Your task to perform on an android device: toggle notifications settings in the gmail app Image 0: 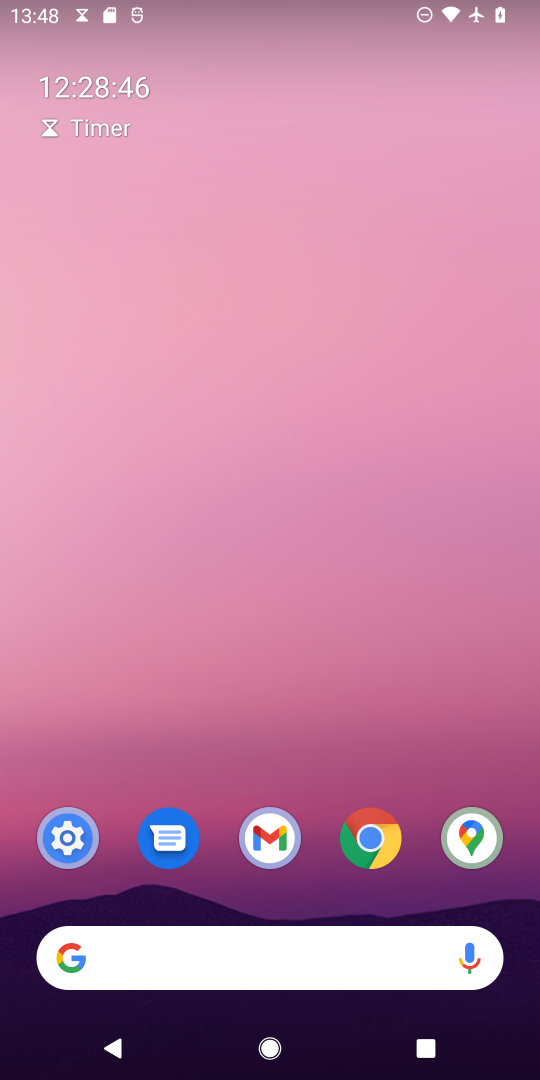
Step 0: press home button
Your task to perform on an android device: toggle notifications settings in the gmail app Image 1: 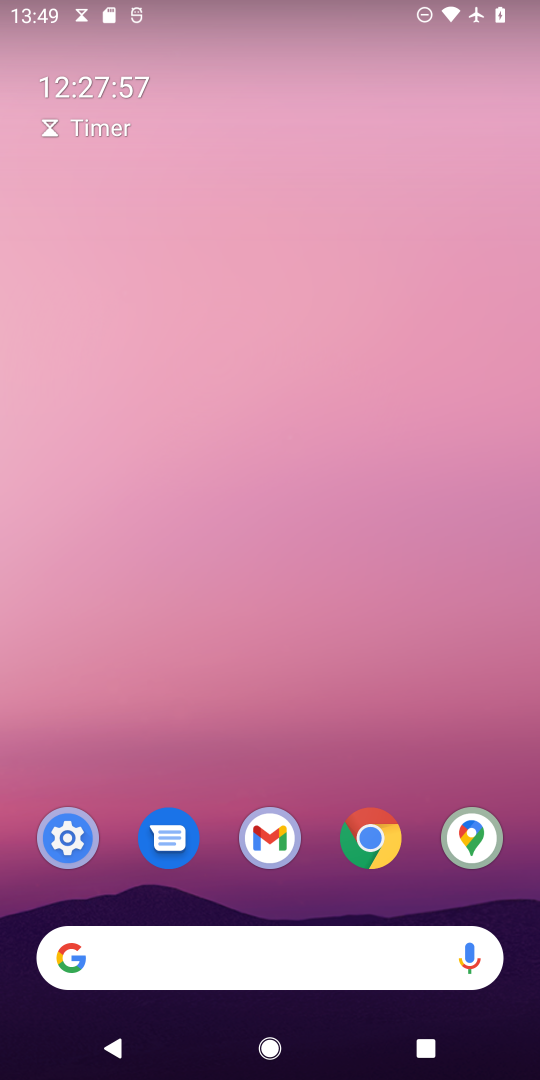
Step 1: click (260, 849)
Your task to perform on an android device: toggle notifications settings in the gmail app Image 2: 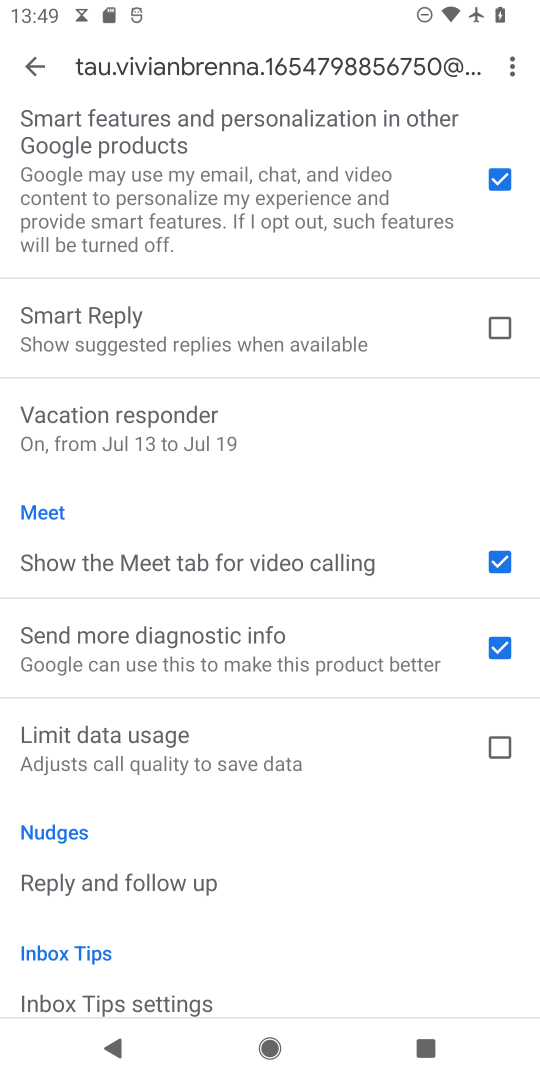
Step 2: click (30, 56)
Your task to perform on an android device: toggle notifications settings in the gmail app Image 3: 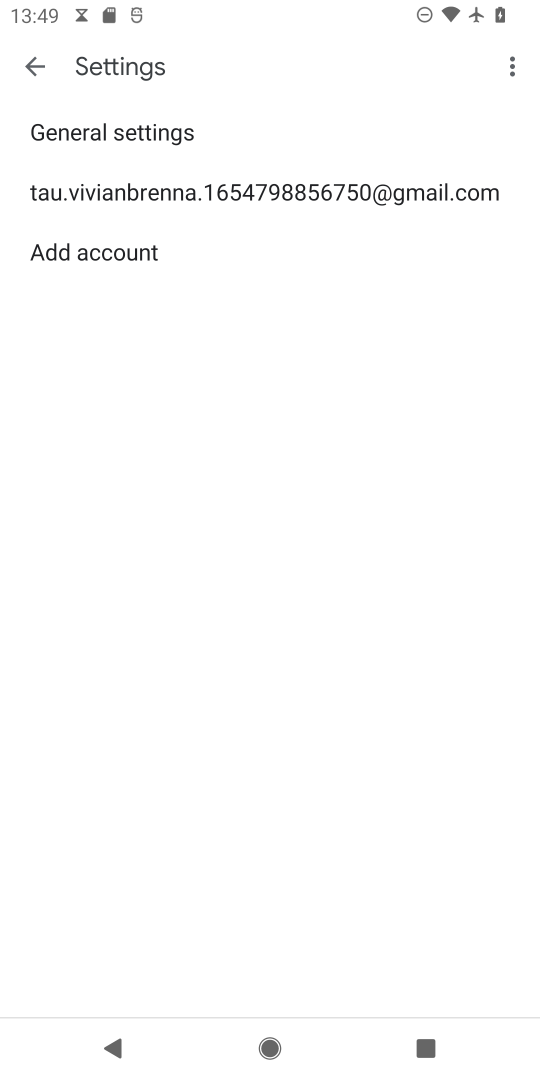
Step 3: click (183, 192)
Your task to perform on an android device: toggle notifications settings in the gmail app Image 4: 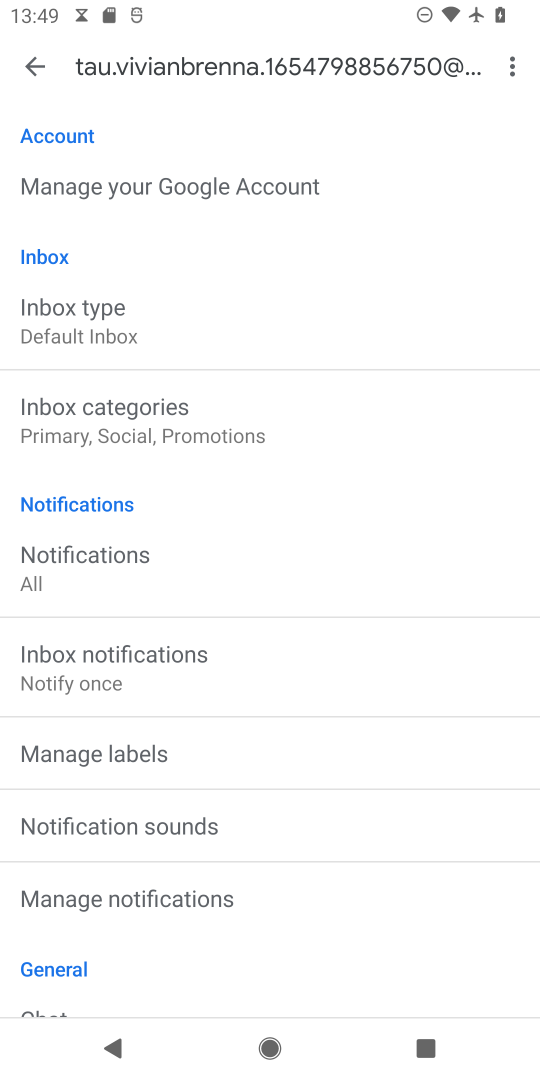
Step 4: click (151, 894)
Your task to perform on an android device: toggle notifications settings in the gmail app Image 5: 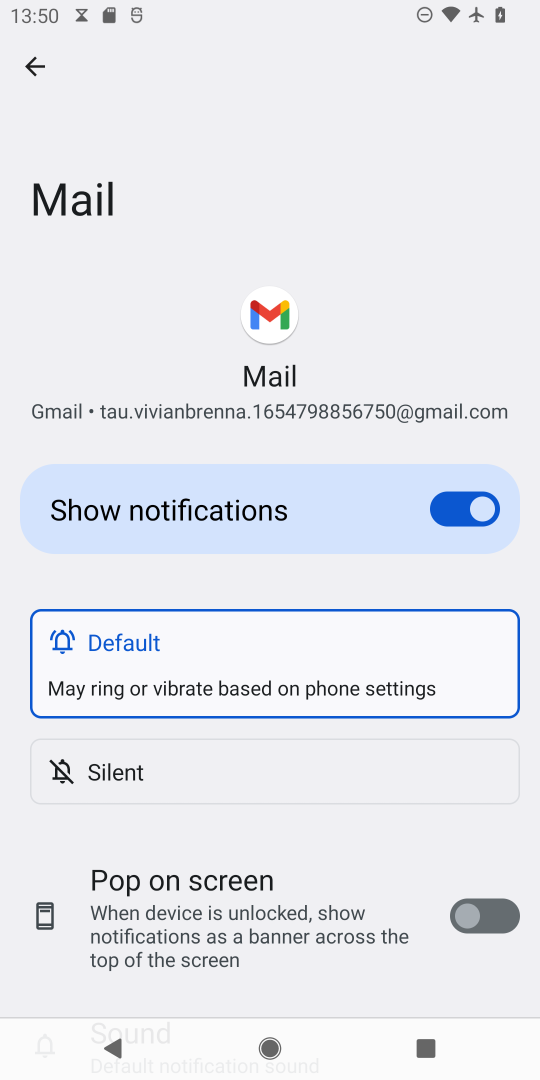
Step 5: click (478, 508)
Your task to perform on an android device: toggle notifications settings in the gmail app Image 6: 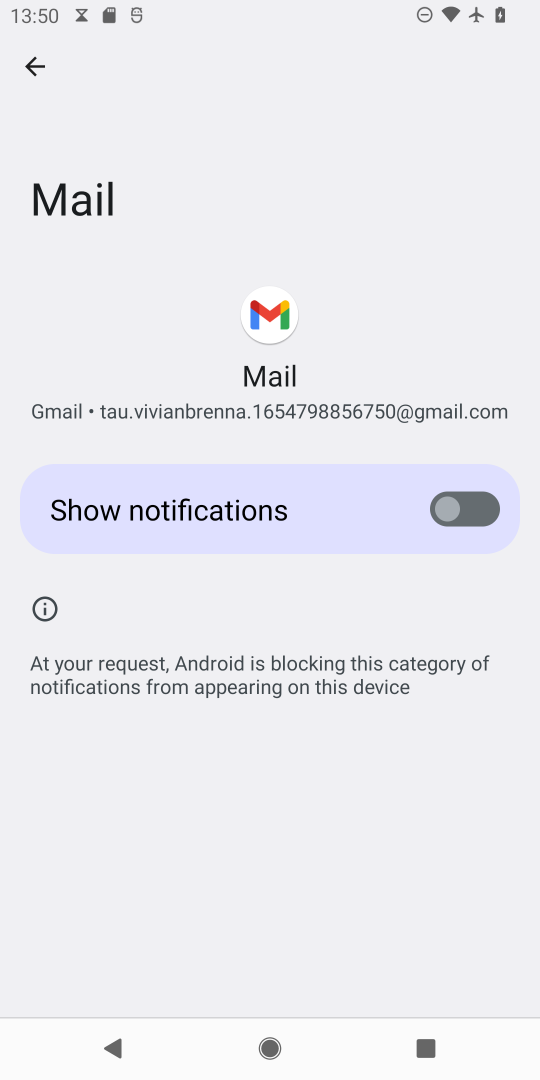
Step 6: task complete